Your task to perform on an android device: toggle show notifications on the lock screen Image 0: 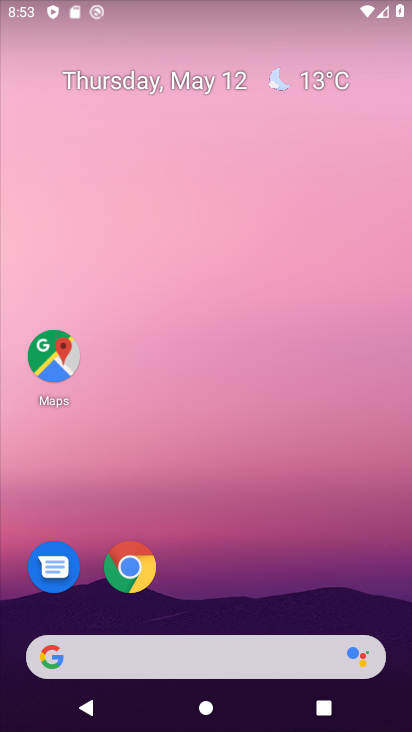
Step 0: press home button
Your task to perform on an android device: toggle show notifications on the lock screen Image 1: 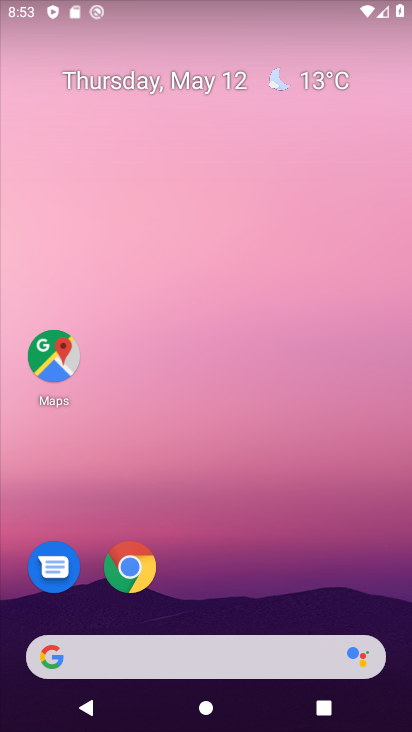
Step 1: drag from (235, 483) to (285, 133)
Your task to perform on an android device: toggle show notifications on the lock screen Image 2: 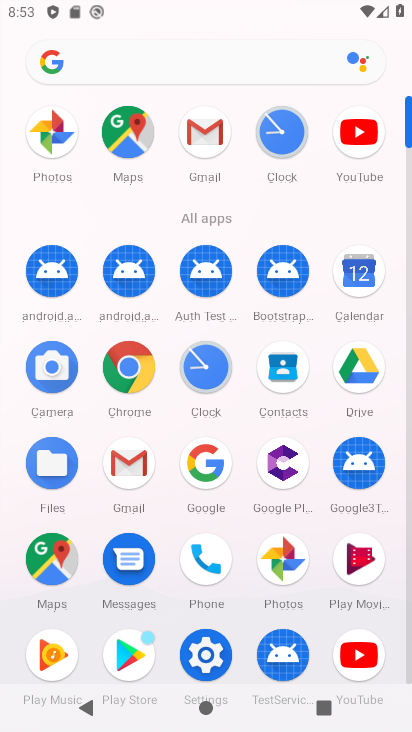
Step 2: click (199, 644)
Your task to perform on an android device: toggle show notifications on the lock screen Image 3: 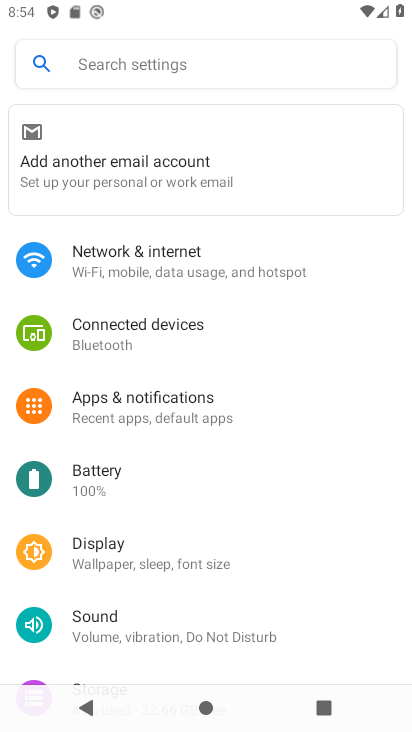
Step 3: click (179, 393)
Your task to perform on an android device: toggle show notifications on the lock screen Image 4: 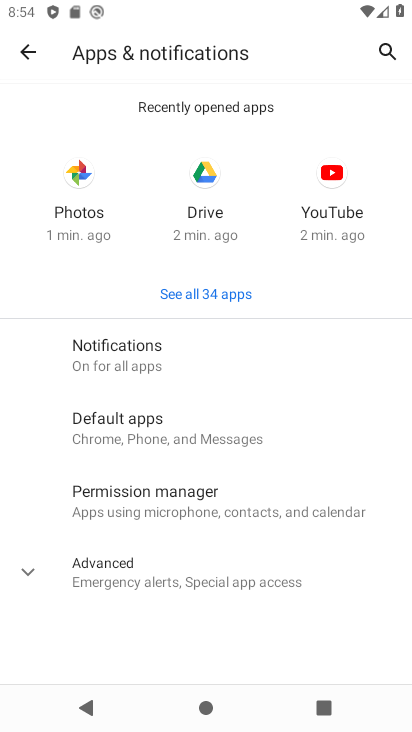
Step 4: click (155, 360)
Your task to perform on an android device: toggle show notifications on the lock screen Image 5: 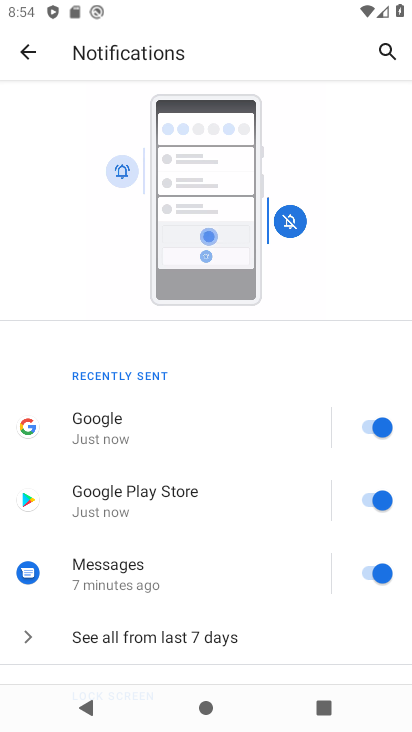
Step 5: drag from (186, 622) to (245, 207)
Your task to perform on an android device: toggle show notifications on the lock screen Image 6: 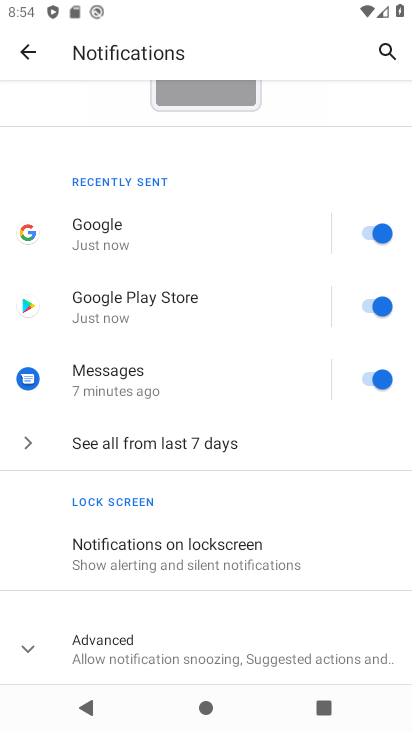
Step 6: click (222, 553)
Your task to perform on an android device: toggle show notifications on the lock screen Image 7: 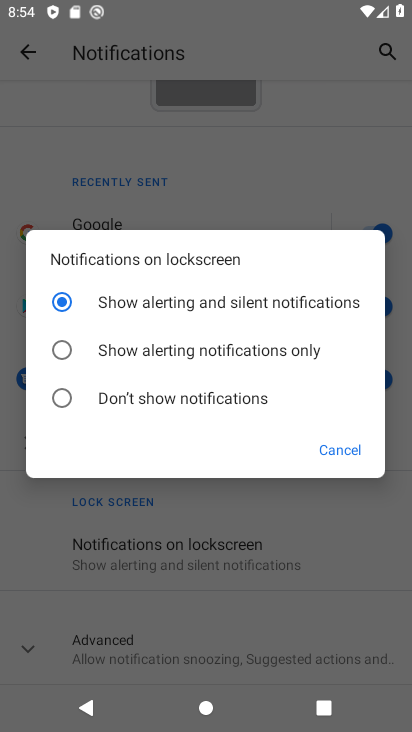
Step 7: click (75, 350)
Your task to perform on an android device: toggle show notifications on the lock screen Image 8: 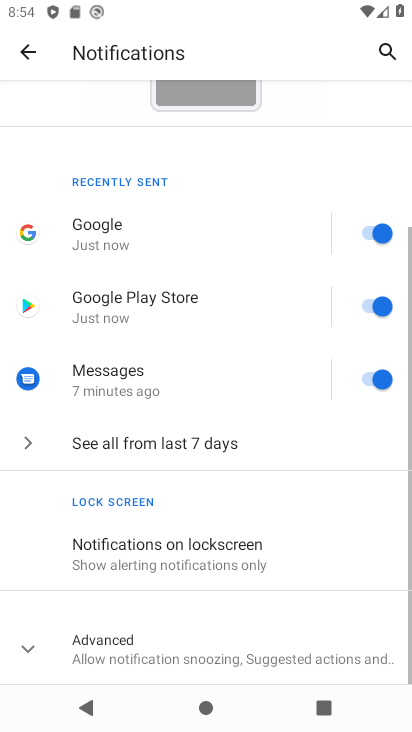
Step 8: task complete